Your task to perform on an android device: Open location settings Image 0: 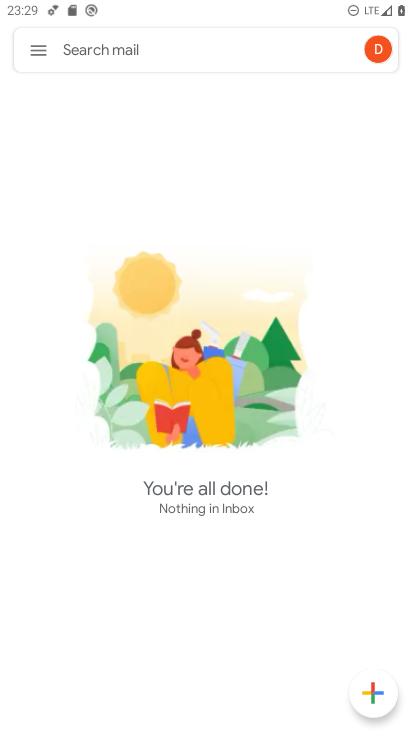
Step 0: press home button
Your task to perform on an android device: Open location settings Image 1: 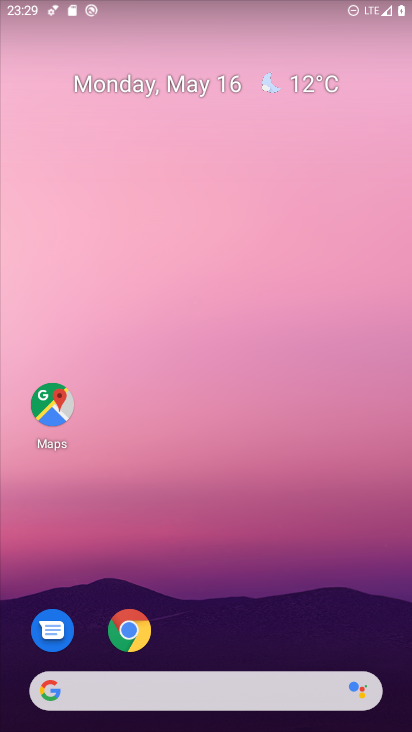
Step 1: drag from (226, 507) to (275, 29)
Your task to perform on an android device: Open location settings Image 2: 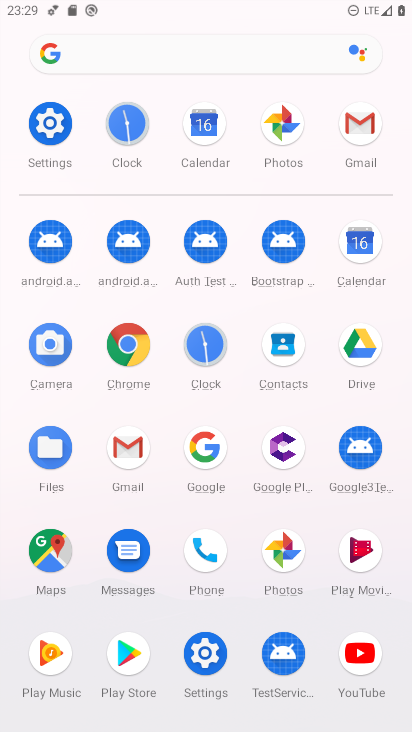
Step 2: click (50, 115)
Your task to perform on an android device: Open location settings Image 3: 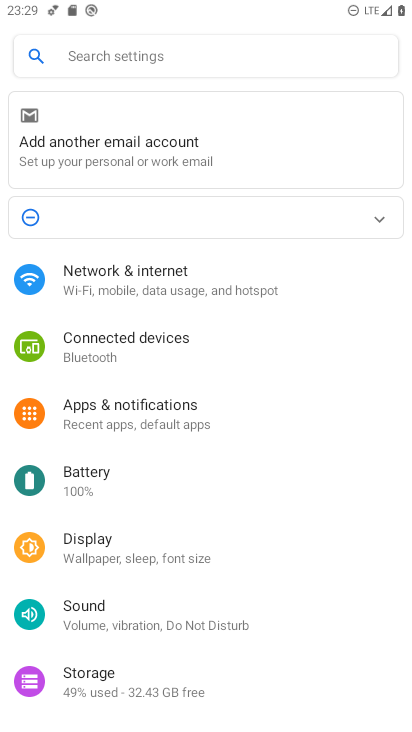
Step 3: drag from (234, 573) to (245, 58)
Your task to perform on an android device: Open location settings Image 4: 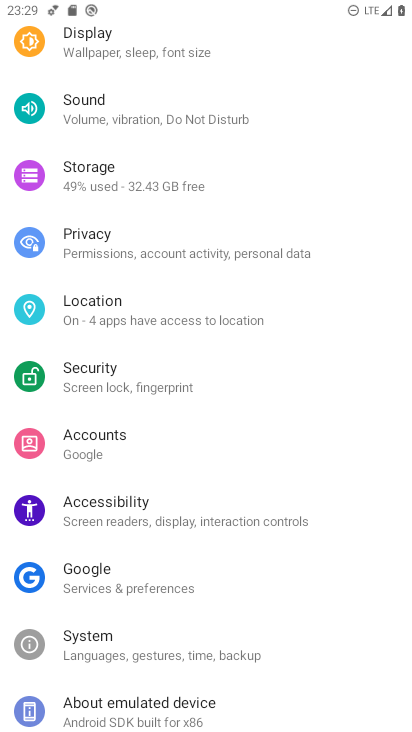
Step 4: click (190, 310)
Your task to perform on an android device: Open location settings Image 5: 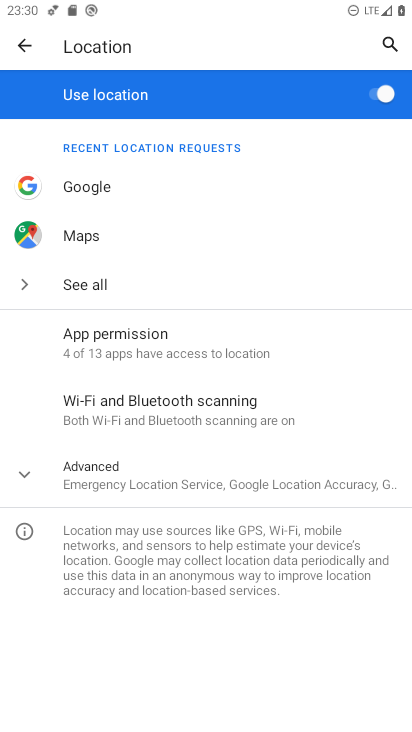
Step 5: task complete